Your task to perform on an android device: turn on airplane mode Image 0: 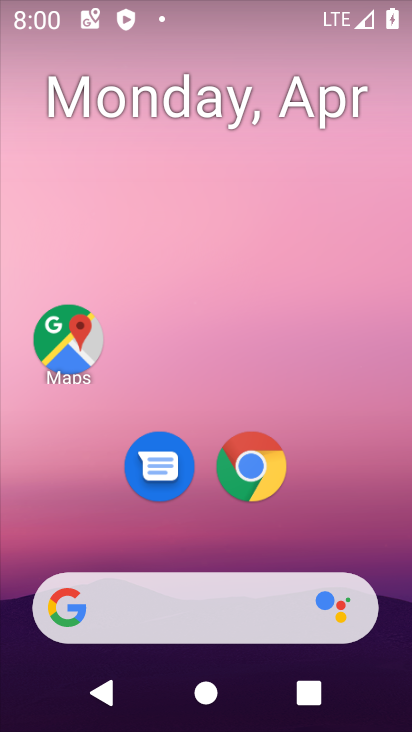
Step 0: drag from (199, 392) to (310, 13)
Your task to perform on an android device: turn on airplane mode Image 1: 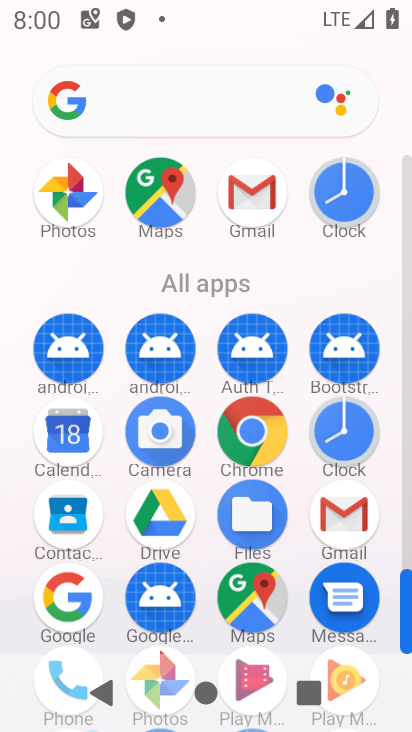
Step 1: drag from (216, 631) to (258, 183)
Your task to perform on an android device: turn on airplane mode Image 2: 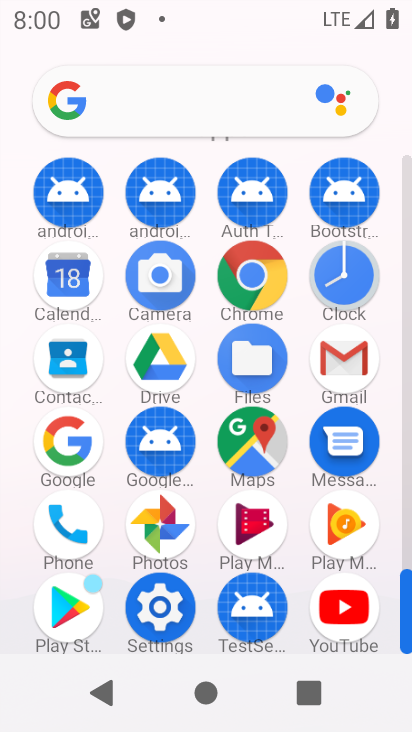
Step 2: click (167, 615)
Your task to perform on an android device: turn on airplane mode Image 3: 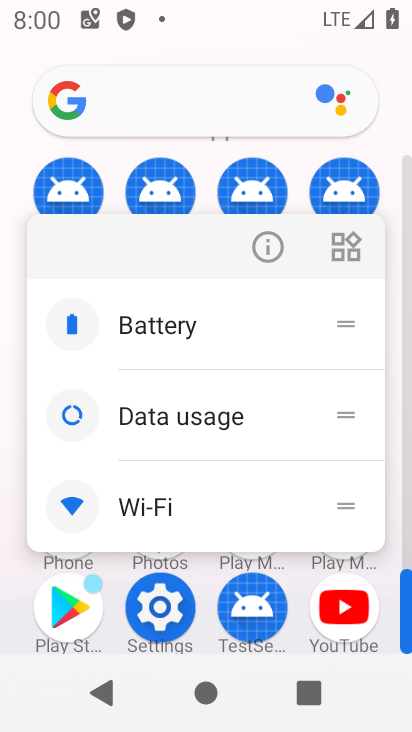
Step 3: click (272, 235)
Your task to perform on an android device: turn on airplane mode Image 4: 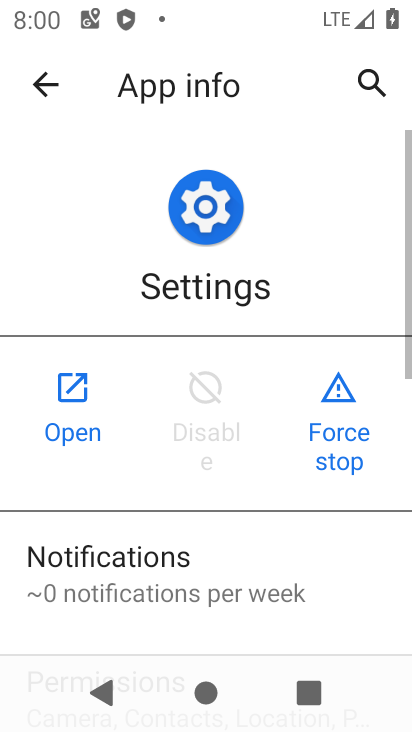
Step 4: click (76, 407)
Your task to perform on an android device: turn on airplane mode Image 5: 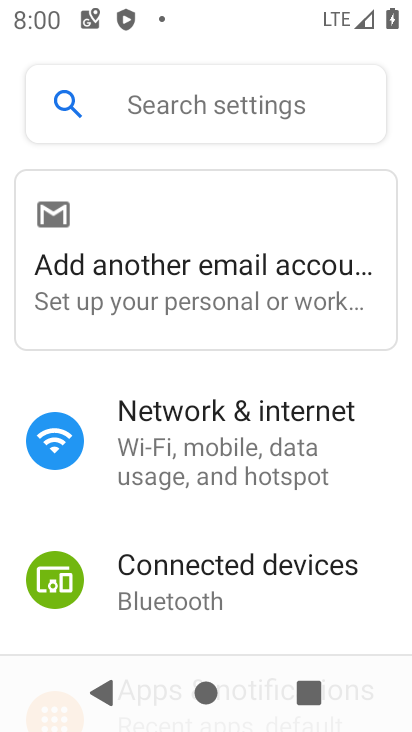
Step 5: click (259, 445)
Your task to perform on an android device: turn on airplane mode Image 6: 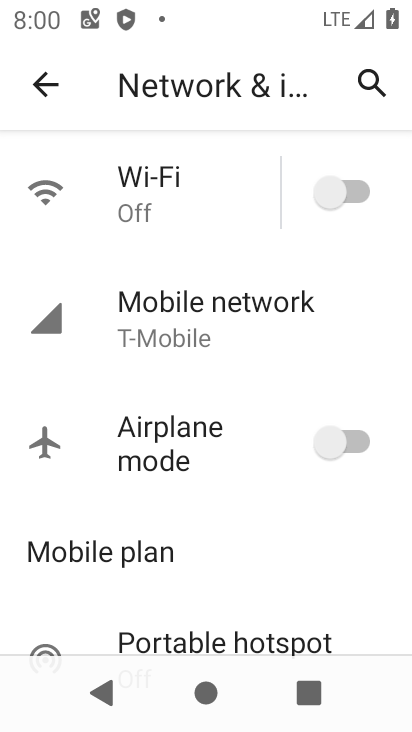
Step 6: click (278, 440)
Your task to perform on an android device: turn on airplane mode Image 7: 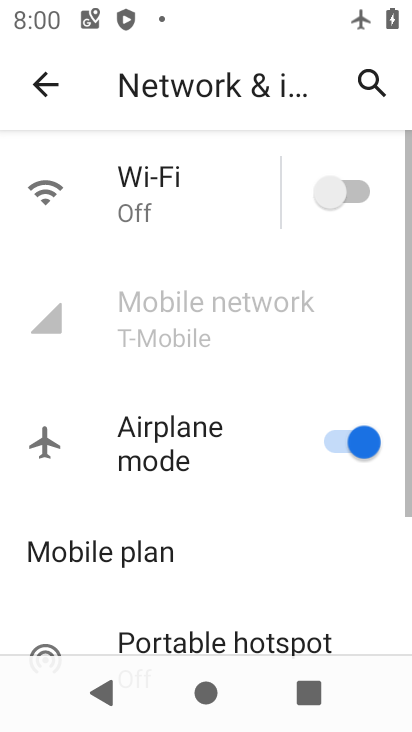
Step 7: task complete